Your task to perform on an android device: toggle wifi Image 0: 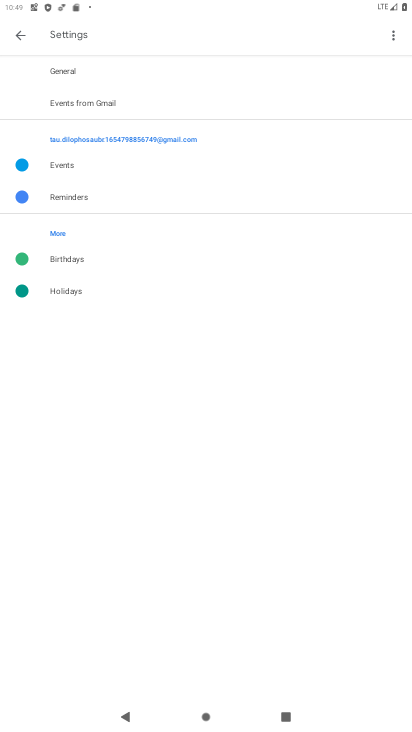
Step 0: press home button
Your task to perform on an android device: toggle wifi Image 1: 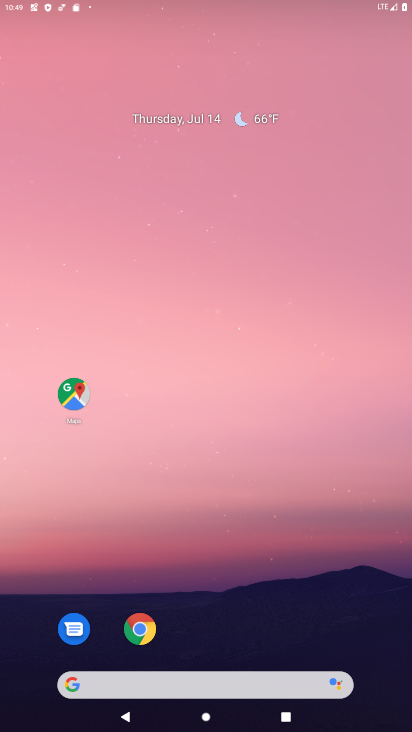
Step 1: drag from (240, 605) to (251, 106)
Your task to perform on an android device: toggle wifi Image 2: 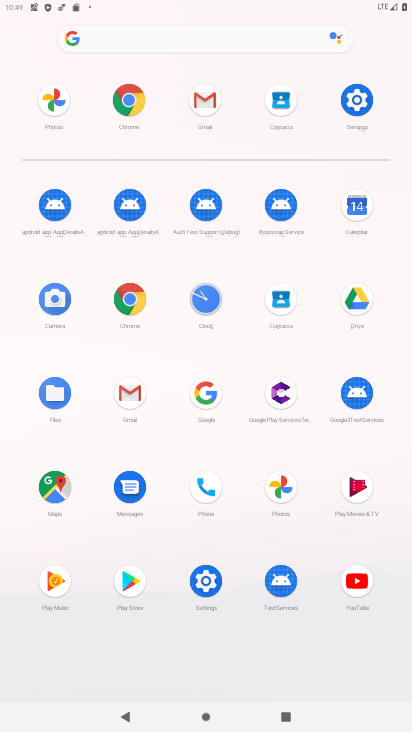
Step 2: click (360, 107)
Your task to perform on an android device: toggle wifi Image 3: 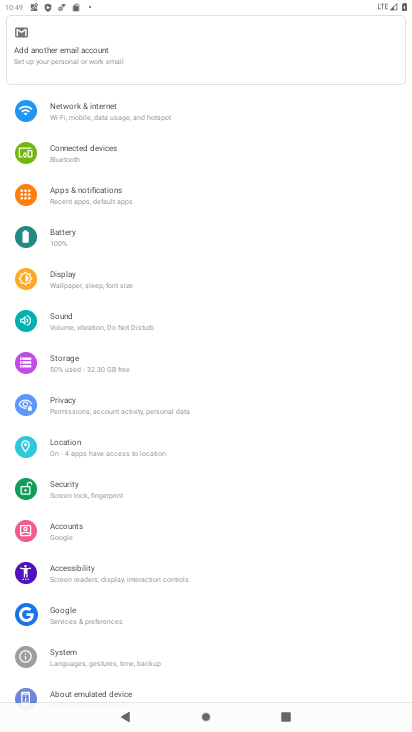
Step 3: click (83, 100)
Your task to perform on an android device: toggle wifi Image 4: 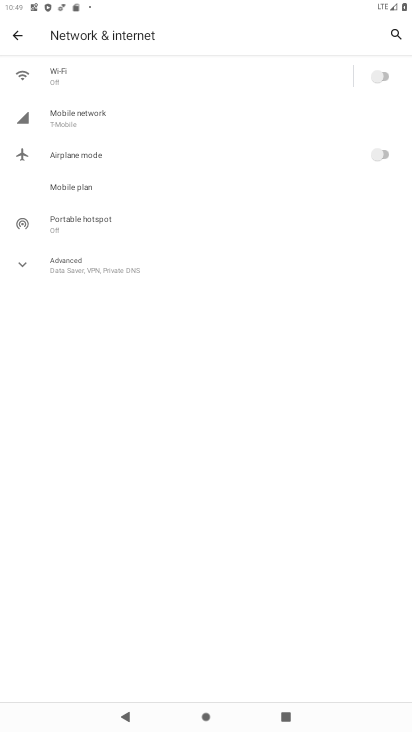
Step 4: click (383, 76)
Your task to perform on an android device: toggle wifi Image 5: 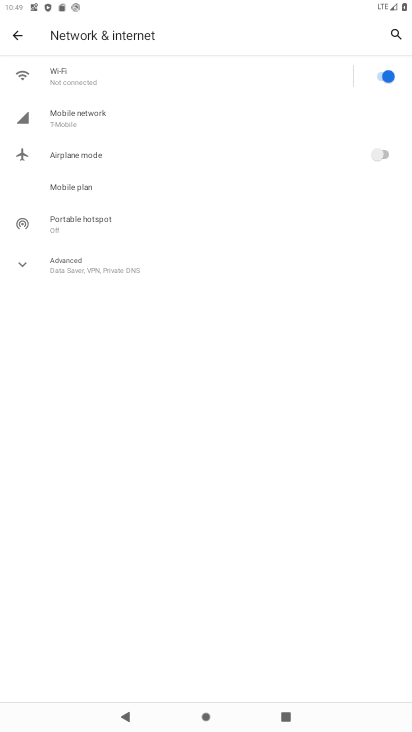
Step 5: task complete